Your task to perform on an android device: Play the last video I watched on Youtube Image 0: 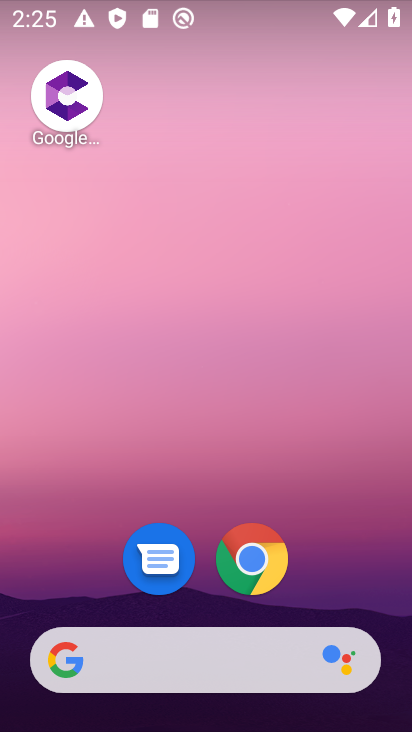
Step 0: click (162, 609)
Your task to perform on an android device: Play the last video I watched on Youtube Image 1: 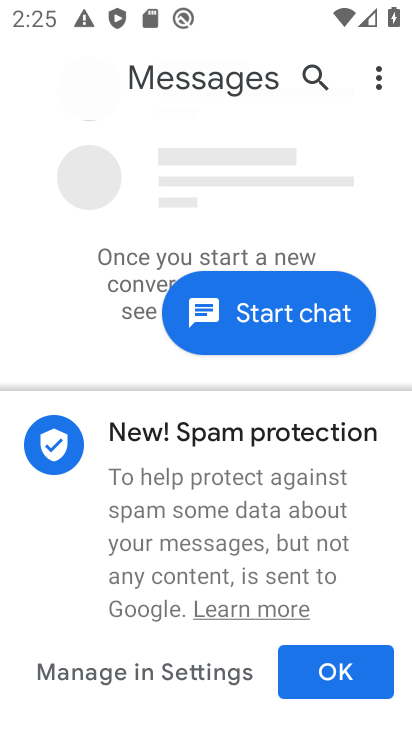
Step 1: press back button
Your task to perform on an android device: Play the last video I watched on Youtube Image 2: 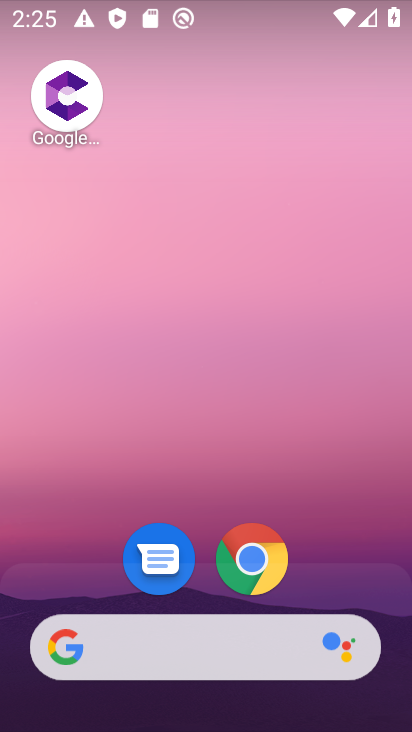
Step 2: drag from (260, 74) to (299, 37)
Your task to perform on an android device: Play the last video I watched on Youtube Image 3: 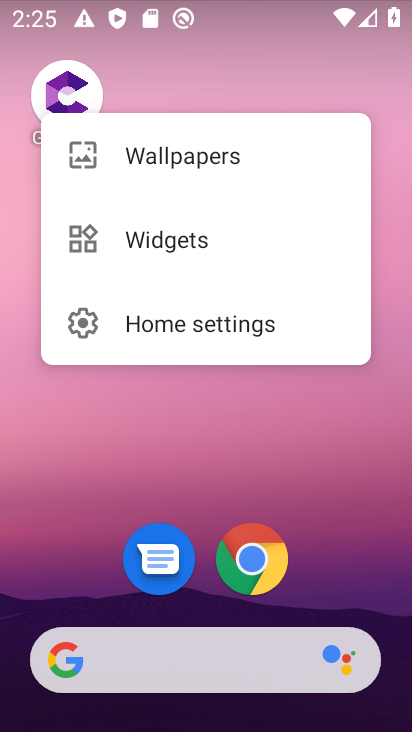
Step 3: click (314, 591)
Your task to perform on an android device: Play the last video I watched on Youtube Image 4: 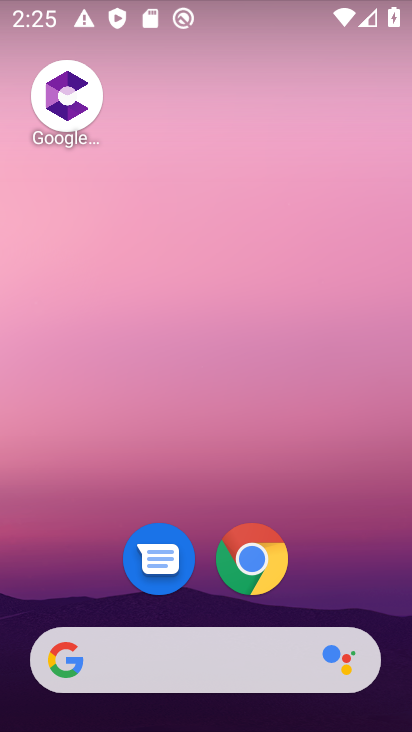
Step 4: drag from (213, 523) to (189, 157)
Your task to perform on an android device: Play the last video I watched on Youtube Image 5: 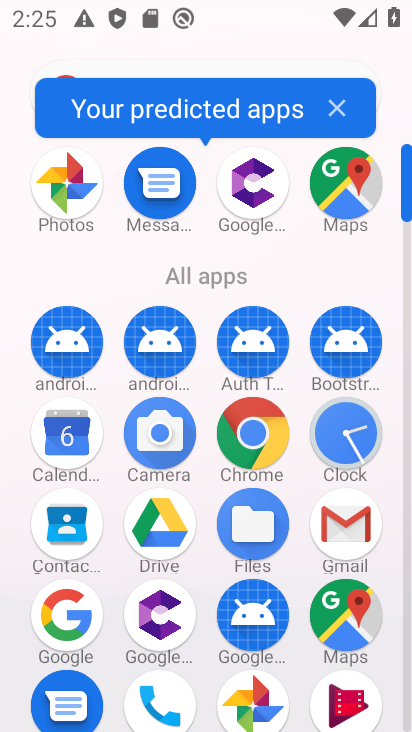
Step 5: drag from (290, 380) to (290, 202)
Your task to perform on an android device: Play the last video I watched on Youtube Image 6: 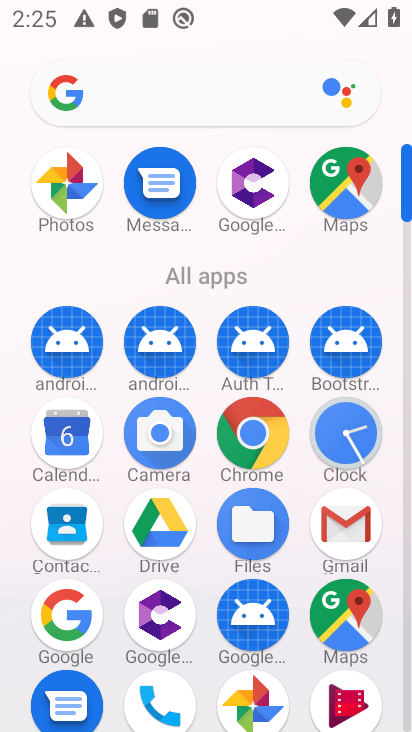
Step 6: drag from (288, 522) to (300, 297)
Your task to perform on an android device: Play the last video I watched on Youtube Image 7: 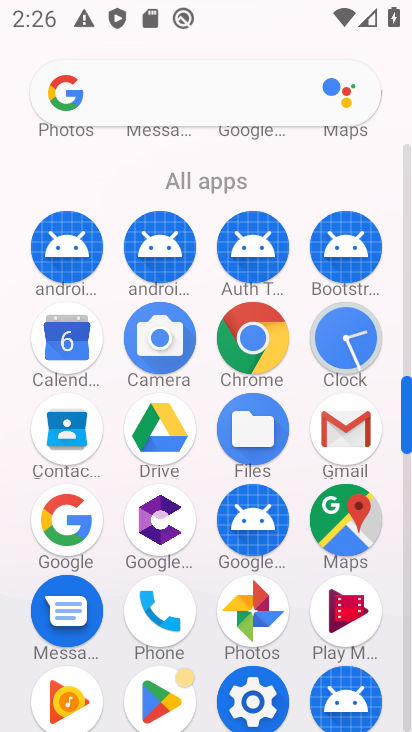
Step 7: drag from (221, 522) to (224, 409)
Your task to perform on an android device: Play the last video I watched on Youtube Image 8: 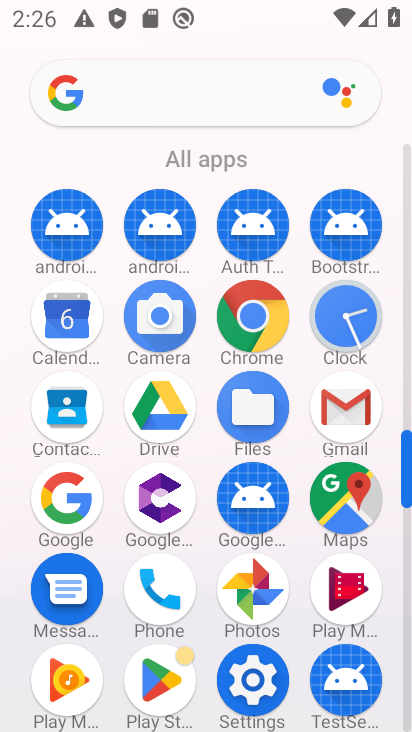
Step 8: drag from (196, 646) to (204, 349)
Your task to perform on an android device: Play the last video I watched on Youtube Image 9: 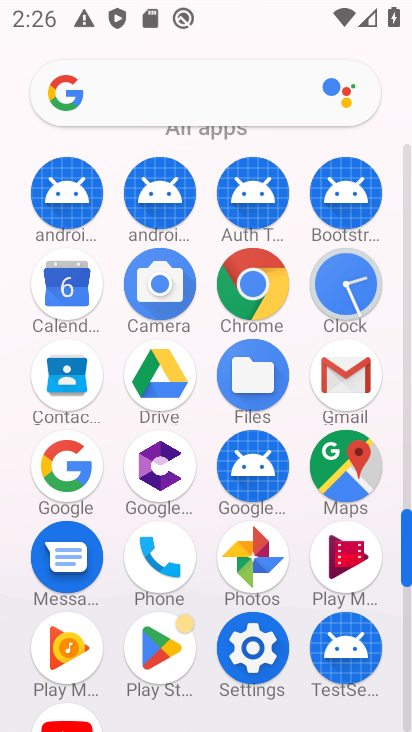
Step 9: drag from (203, 570) to (197, 415)
Your task to perform on an android device: Play the last video I watched on Youtube Image 10: 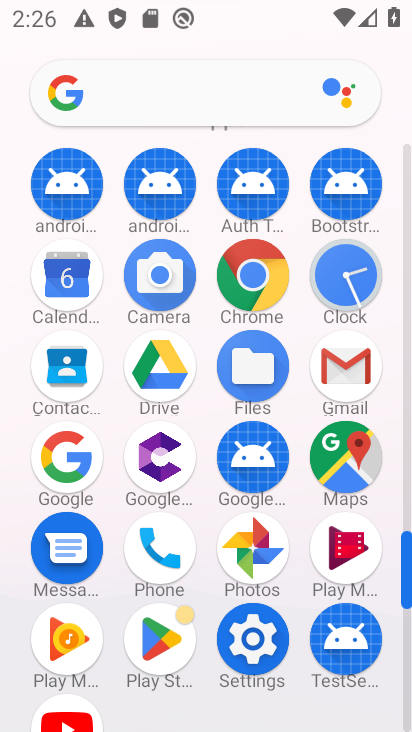
Step 10: click (50, 729)
Your task to perform on an android device: Play the last video I watched on Youtube Image 11: 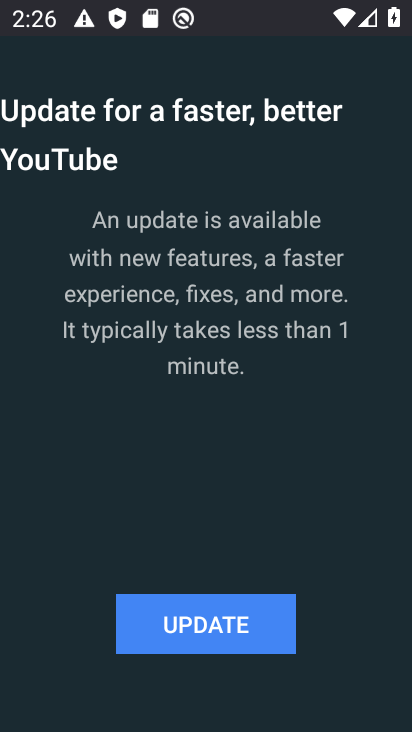
Step 11: click (203, 615)
Your task to perform on an android device: Play the last video I watched on Youtube Image 12: 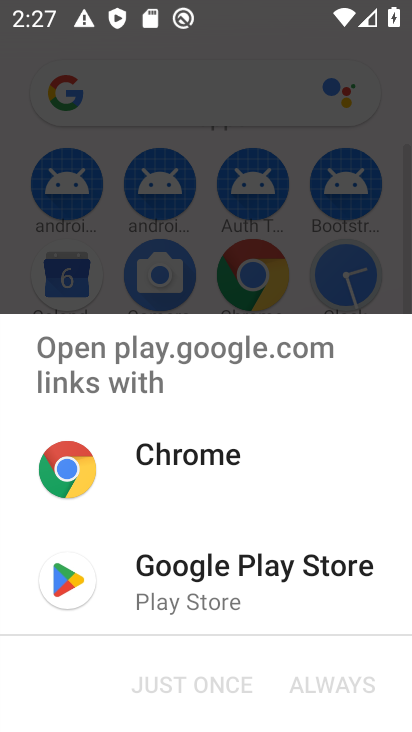
Step 12: click (221, 595)
Your task to perform on an android device: Play the last video I watched on Youtube Image 13: 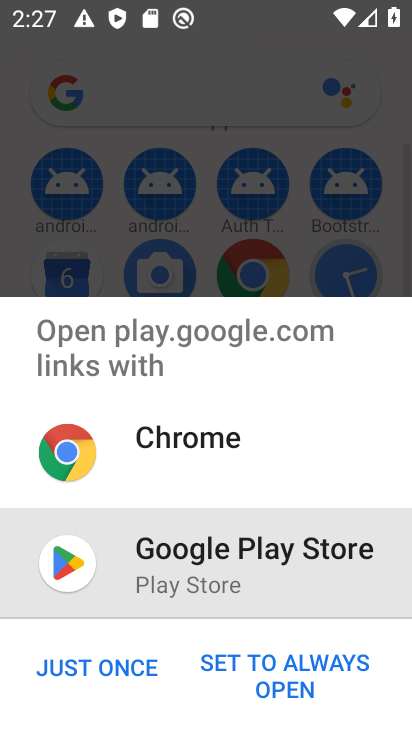
Step 13: click (256, 659)
Your task to perform on an android device: Play the last video I watched on Youtube Image 14: 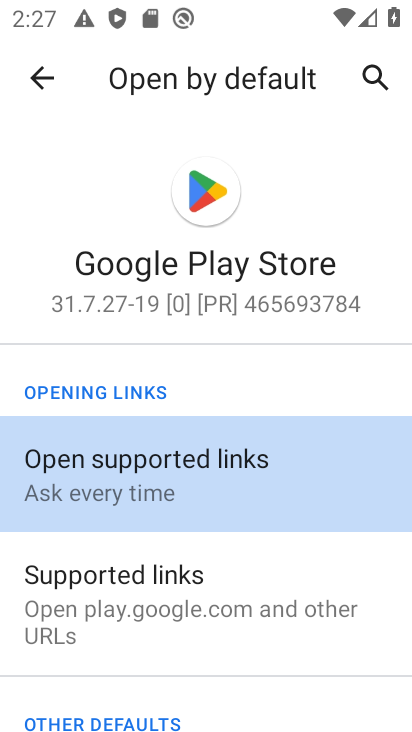
Step 14: click (151, 499)
Your task to perform on an android device: Play the last video I watched on Youtube Image 15: 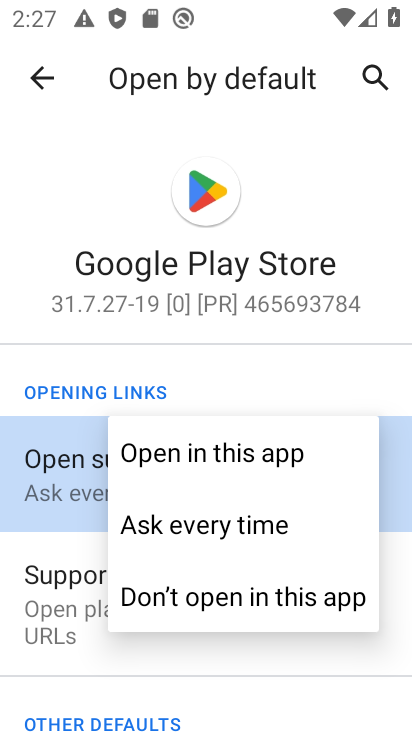
Step 15: click (127, 458)
Your task to perform on an android device: Play the last video I watched on Youtube Image 16: 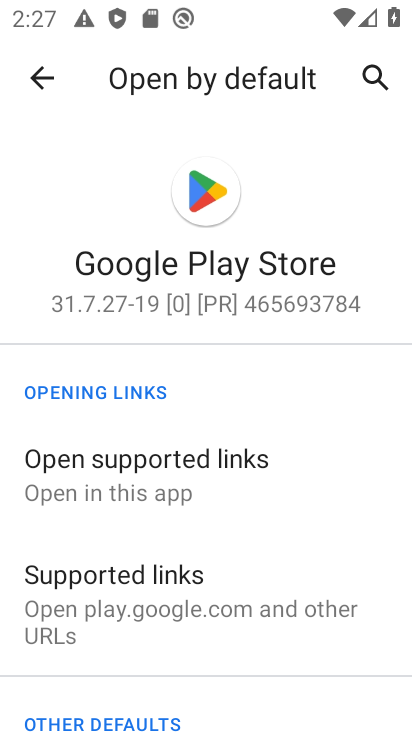
Step 16: click (42, 70)
Your task to perform on an android device: Play the last video I watched on Youtube Image 17: 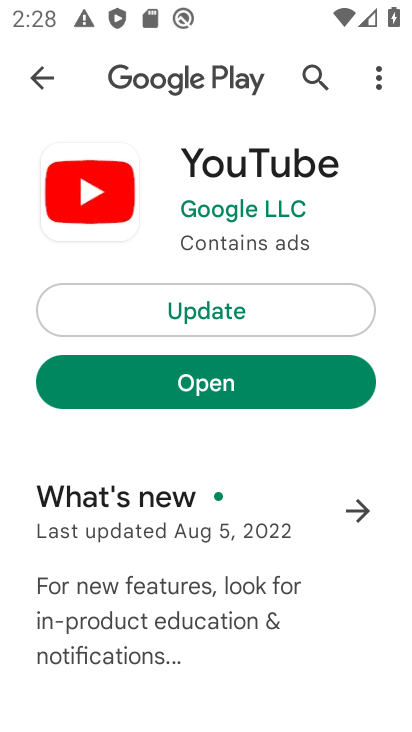
Step 17: click (208, 300)
Your task to perform on an android device: Play the last video I watched on Youtube Image 18: 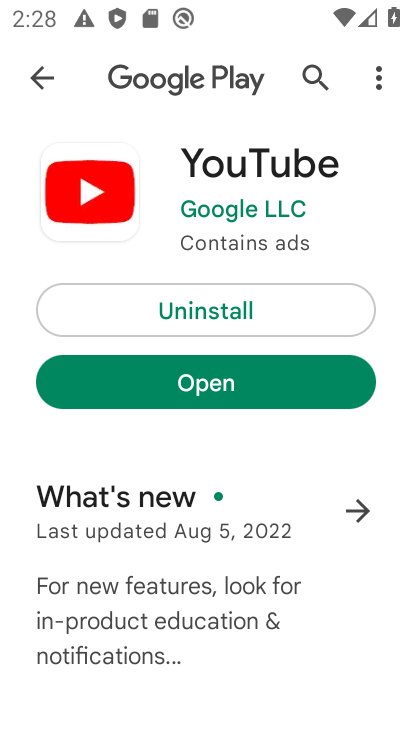
Step 18: click (207, 386)
Your task to perform on an android device: Play the last video I watched on Youtube Image 19: 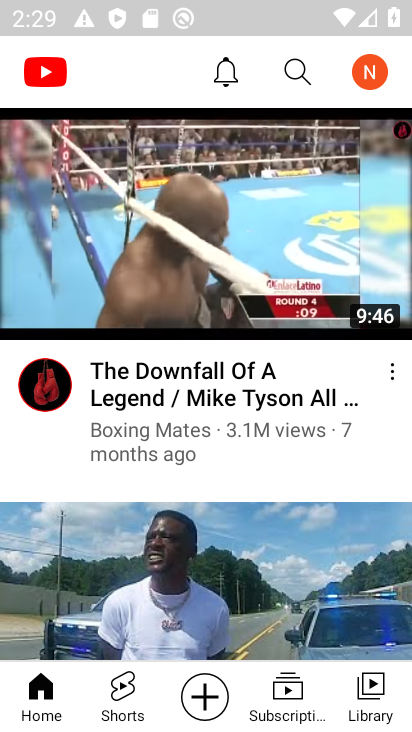
Step 19: click (378, 691)
Your task to perform on an android device: Play the last video I watched on Youtube Image 20: 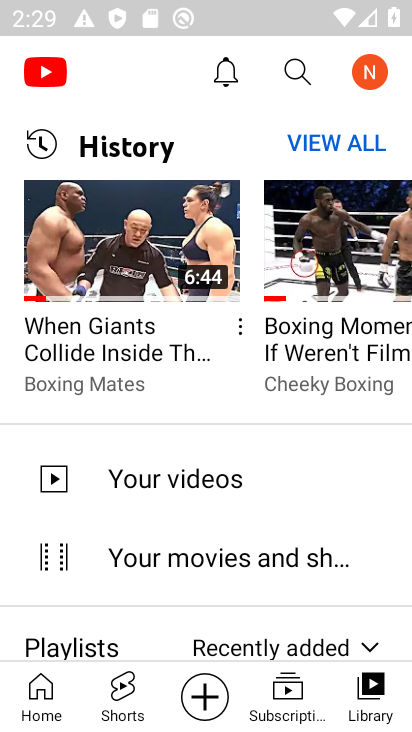
Step 20: task complete